Your task to perform on an android device: turn on showing notifications on the lock screen Image 0: 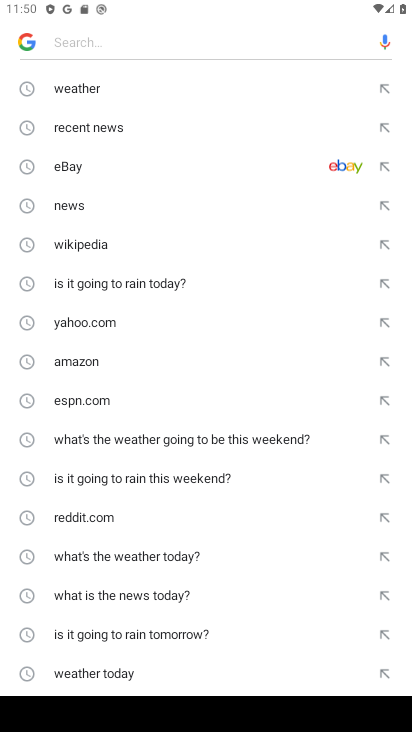
Step 0: press home button
Your task to perform on an android device: turn on showing notifications on the lock screen Image 1: 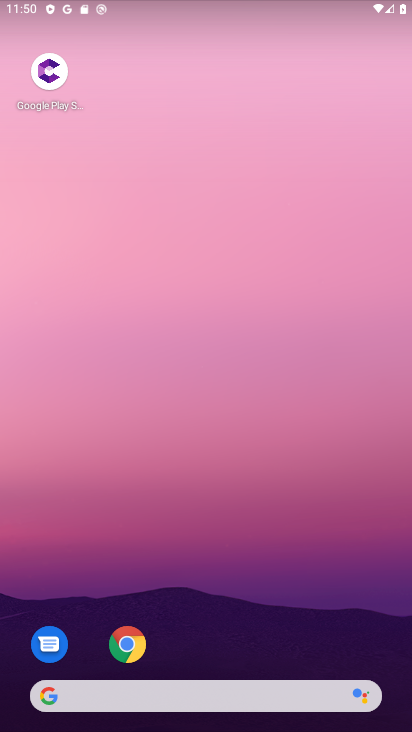
Step 1: drag from (337, 556) to (349, 235)
Your task to perform on an android device: turn on showing notifications on the lock screen Image 2: 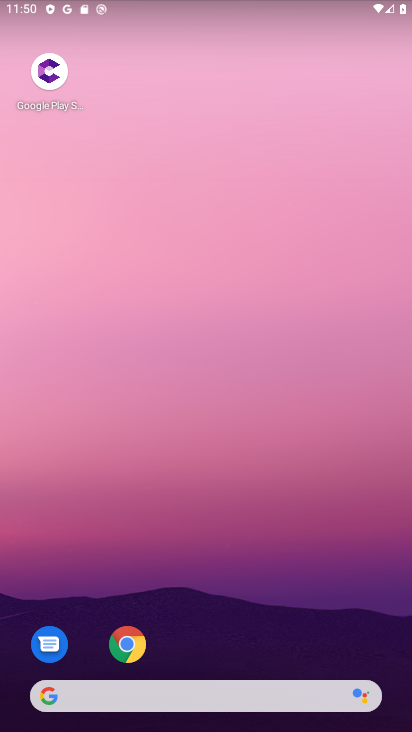
Step 2: drag from (258, 617) to (341, 189)
Your task to perform on an android device: turn on showing notifications on the lock screen Image 3: 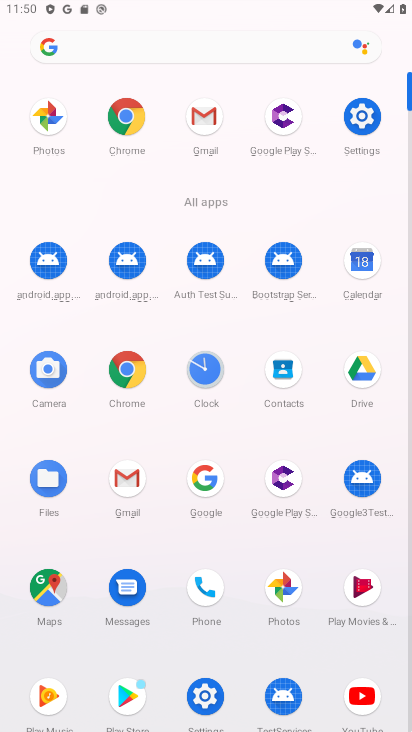
Step 3: click (355, 124)
Your task to perform on an android device: turn on showing notifications on the lock screen Image 4: 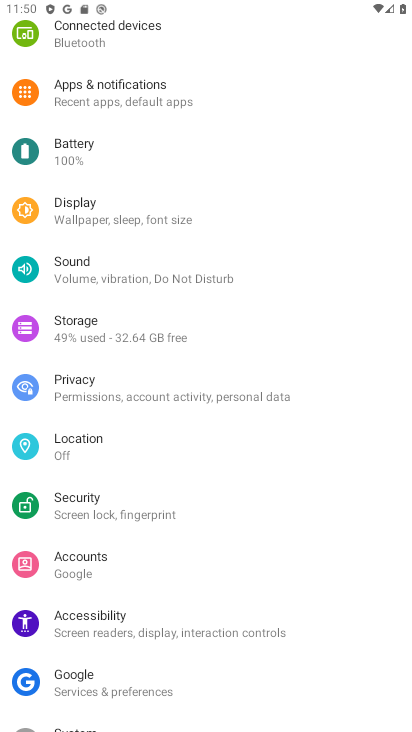
Step 4: click (180, 97)
Your task to perform on an android device: turn on showing notifications on the lock screen Image 5: 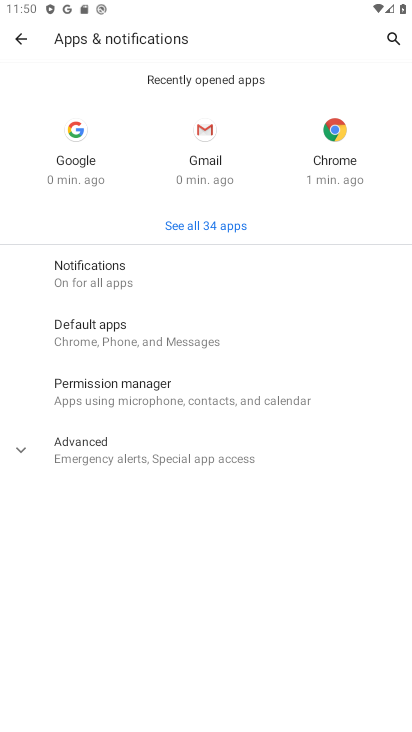
Step 5: click (130, 261)
Your task to perform on an android device: turn on showing notifications on the lock screen Image 6: 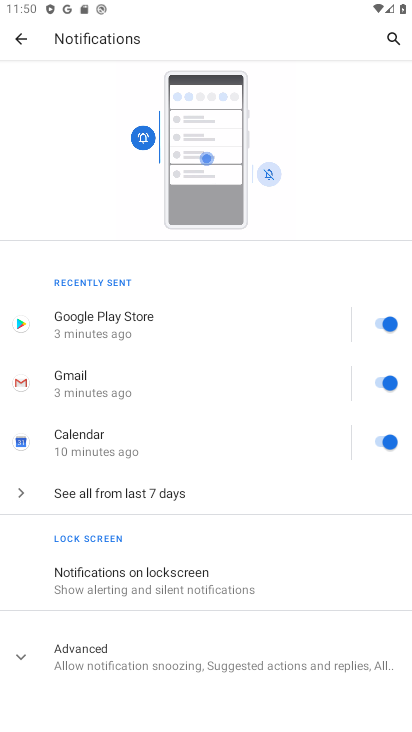
Step 6: click (199, 581)
Your task to perform on an android device: turn on showing notifications on the lock screen Image 7: 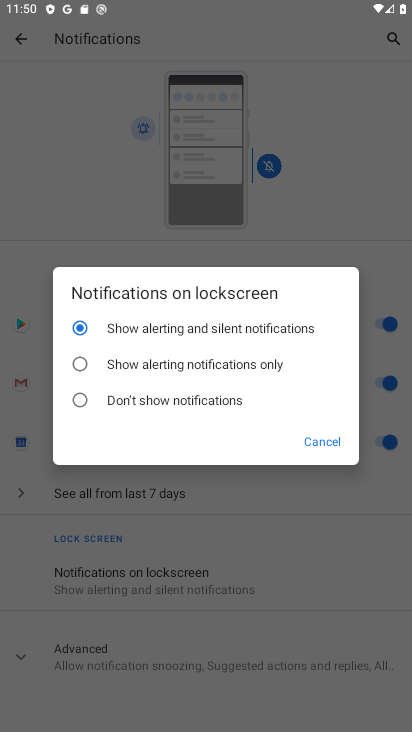
Step 7: task complete